Your task to perform on an android device: What's the weather going to be this weekend? Image 0: 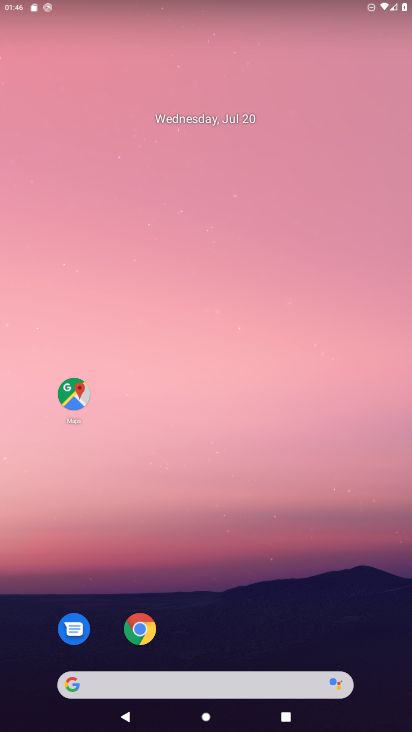
Step 0: click (154, 684)
Your task to perform on an android device: What's the weather going to be this weekend? Image 1: 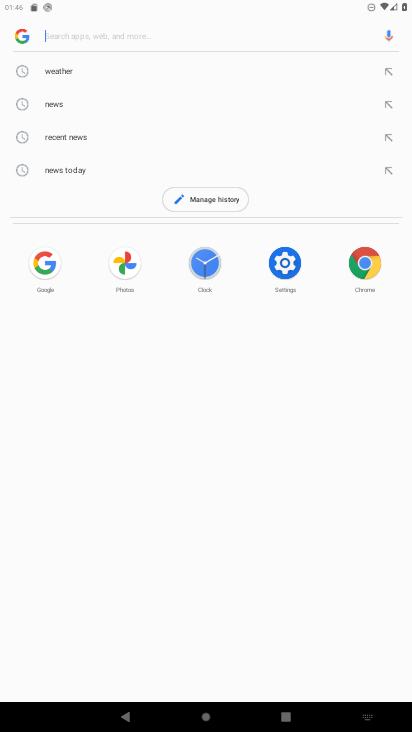
Step 1: click (60, 73)
Your task to perform on an android device: What's the weather going to be this weekend? Image 2: 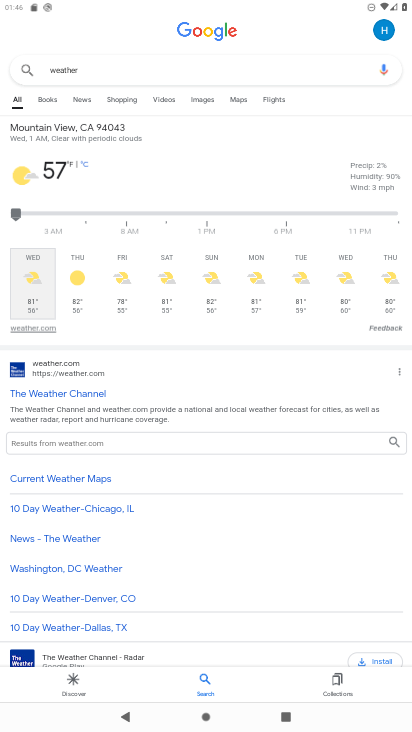
Step 2: click (31, 329)
Your task to perform on an android device: What's the weather going to be this weekend? Image 3: 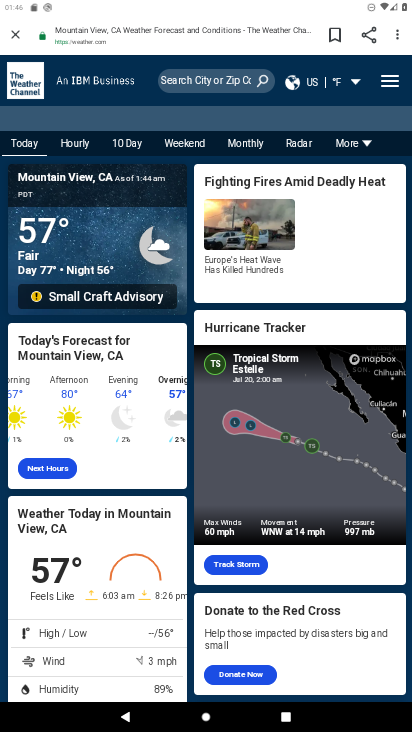
Step 3: click (177, 149)
Your task to perform on an android device: What's the weather going to be this weekend? Image 4: 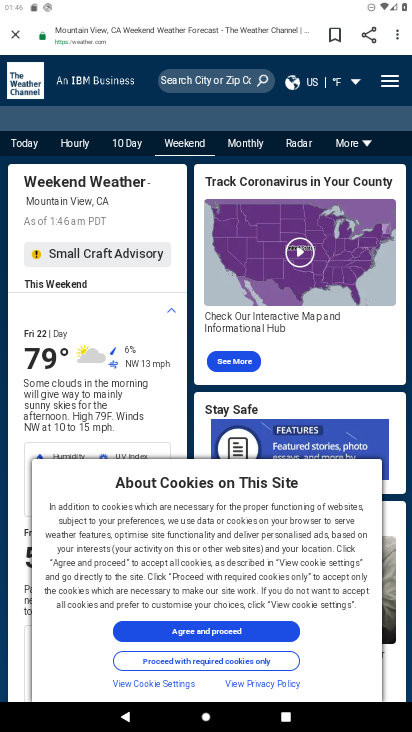
Step 4: task complete